Your task to perform on an android device: Show me popular games on the Play Store Image 0: 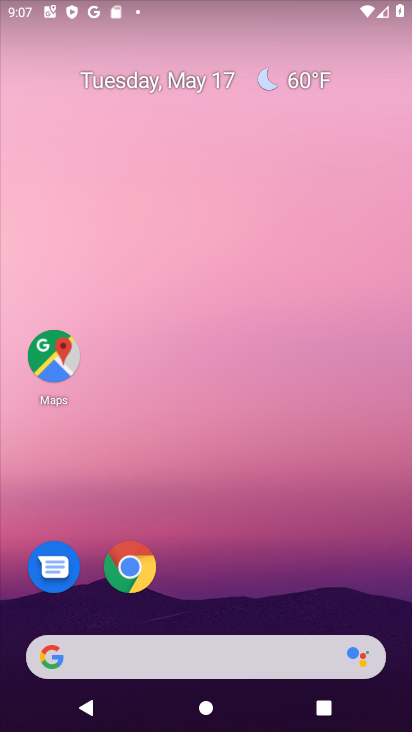
Step 0: drag from (359, 603) to (265, 98)
Your task to perform on an android device: Show me popular games on the Play Store Image 1: 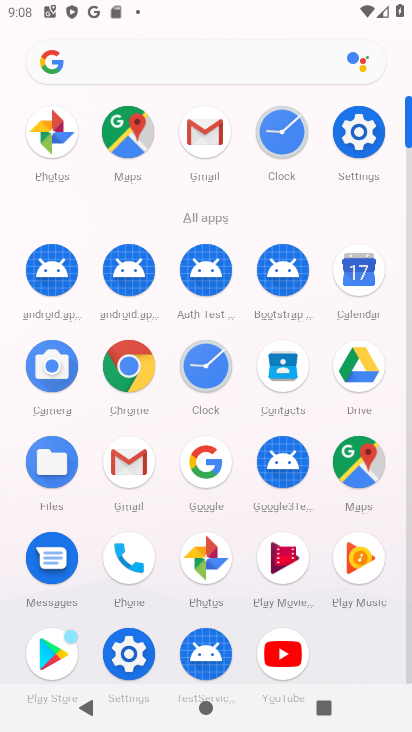
Step 1: click (62, 641)
Your task to perform on an android device: Show me popular games on the Play Store Image 2: 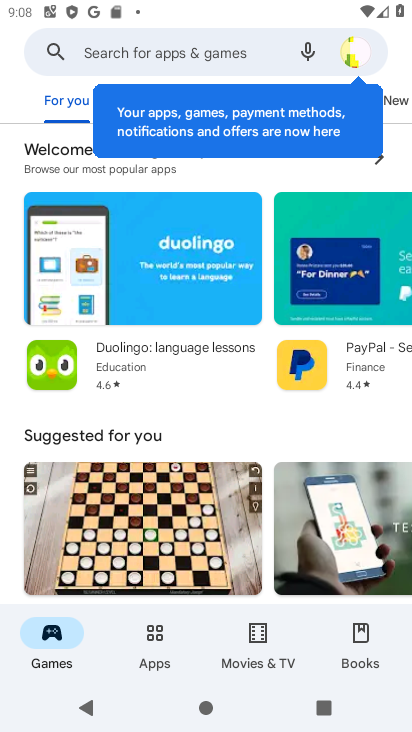
Step 2: task complete